Your task to perform on an android device: open sync settings in chrome Image 0: 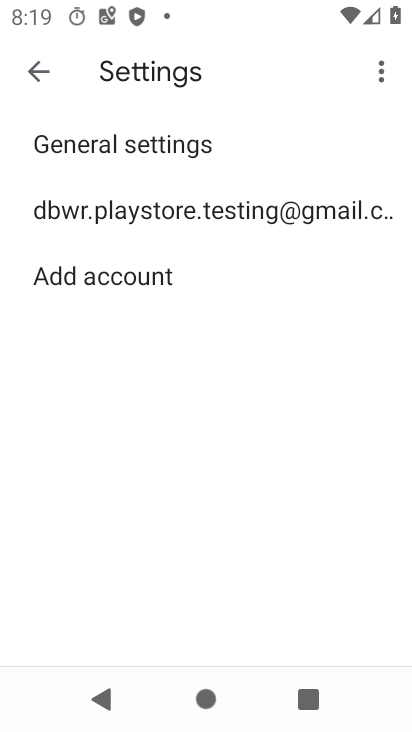
Step 0: press home button
Your task to perform on an android device: open sync settings in chrome Image 1: 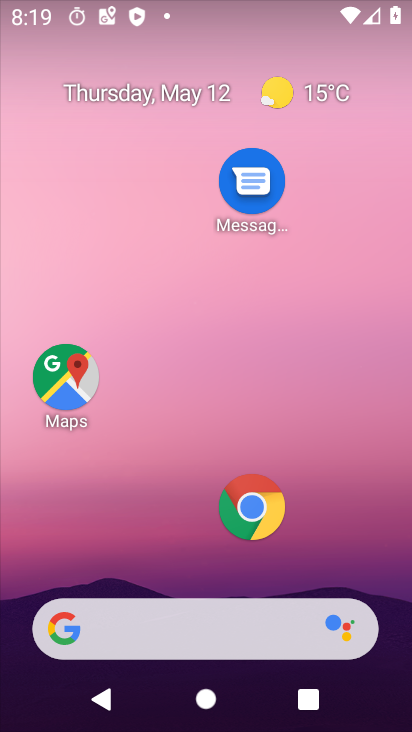
Step 1: click (258, 501)
Your task to perform on an android device: open sync settings in chrome Image 2: 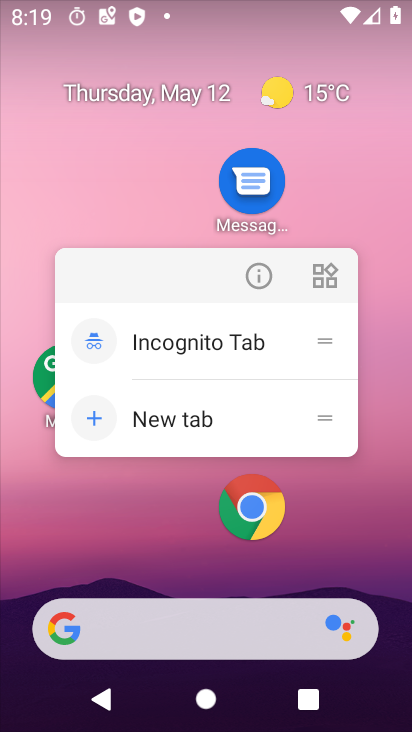
Step 2: click (259, 501)
Your task to perform on an android device: open sync settings in chrome Image 3: 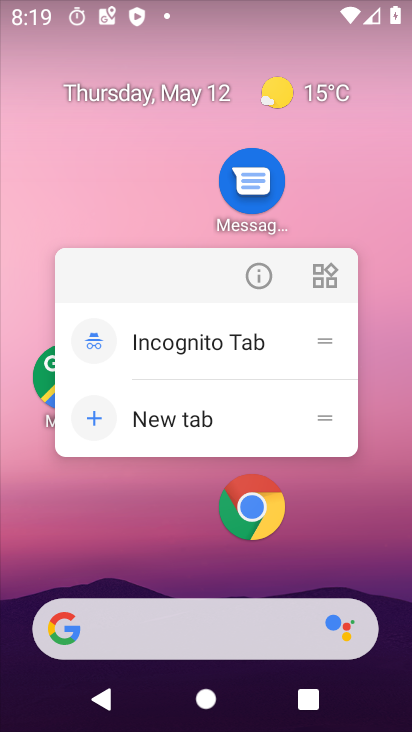
Step 3: click (259, 501)
Your task to perform on an android device: open sync settings in chrome Image 4: 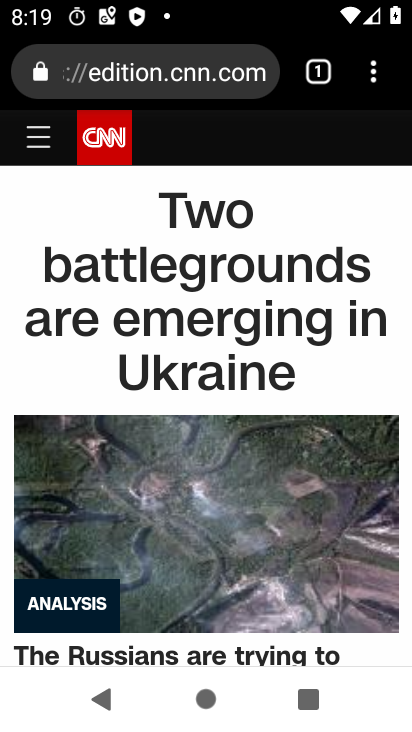
Step 4: click (362, 83)
Your task to perform on an android device: open sync settings in chrome Image 5: 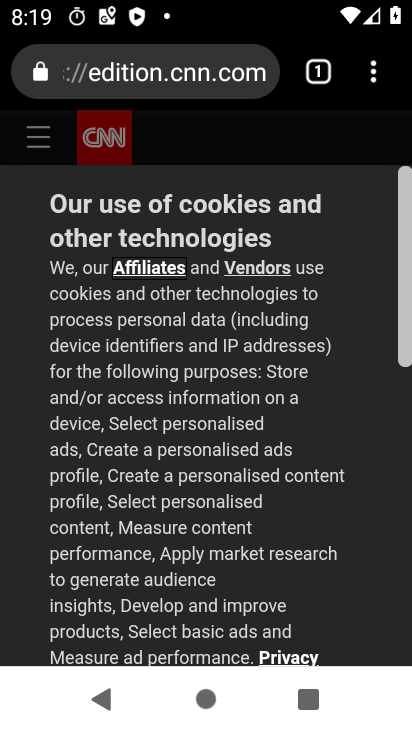
Step 5: click (365, 80)
Your task to perform on an android device: open sync settings in chrome Image 6: 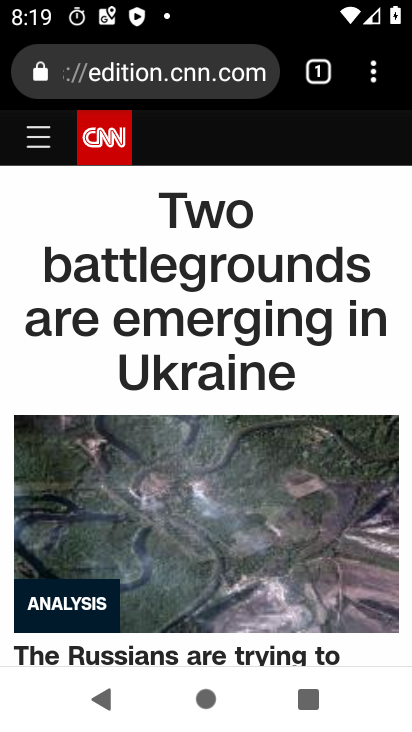
Step 6: click (370, 76)
Your task to perform on an android device: open sync settings in chrome Image 7: 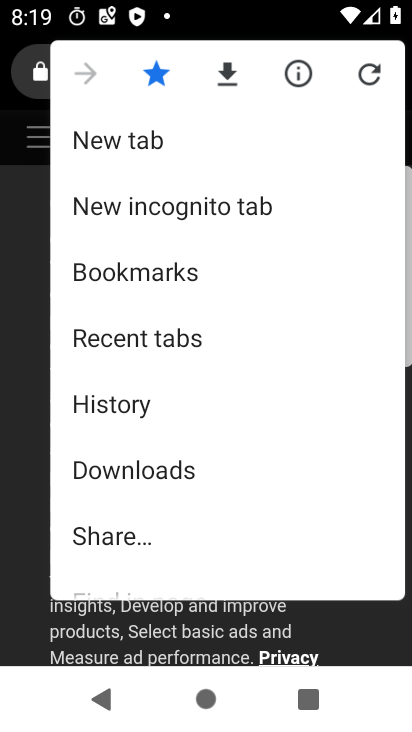
Step 7: drag from (208, 545) to (260, 269)
Your task to perform on an android device: open sync settings in chrome Image 8: 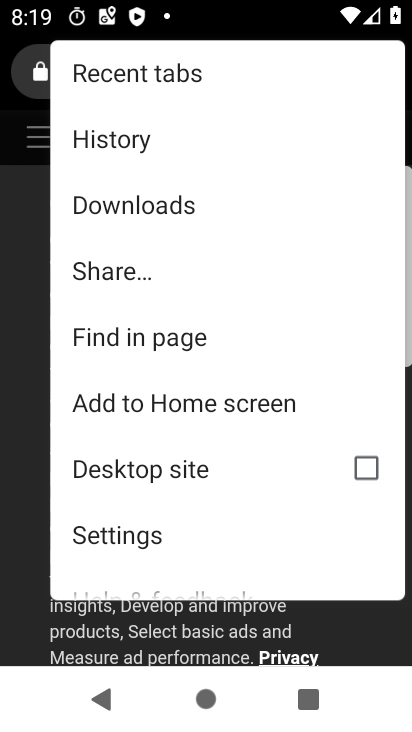
Step 8: click (163, 536)
Your task to perform on an android device: open sync settings in chrome Image 9: 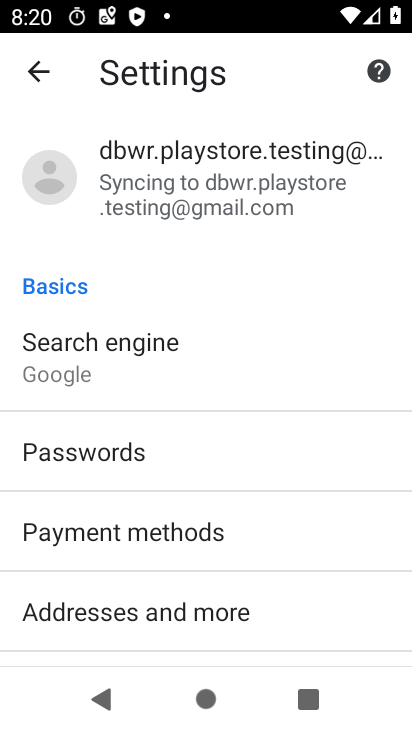
Step 9: click (236, 185)
Your task to perform on an android device: open sync settings in chrome Image 10: 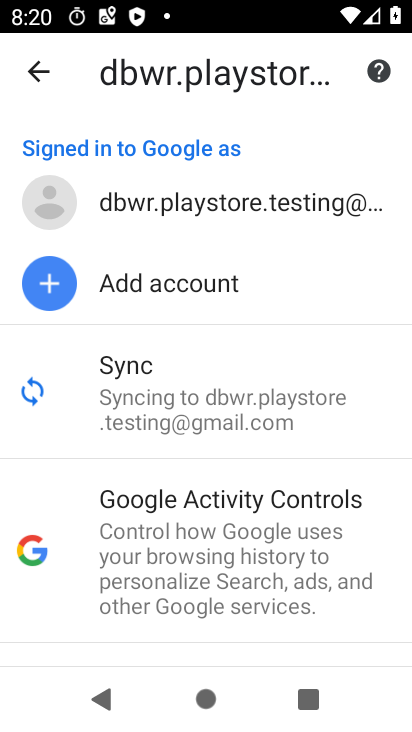
Step 10: click (196, 391)
Your task to perform on an android device: open sync settings in chrome Image 11: 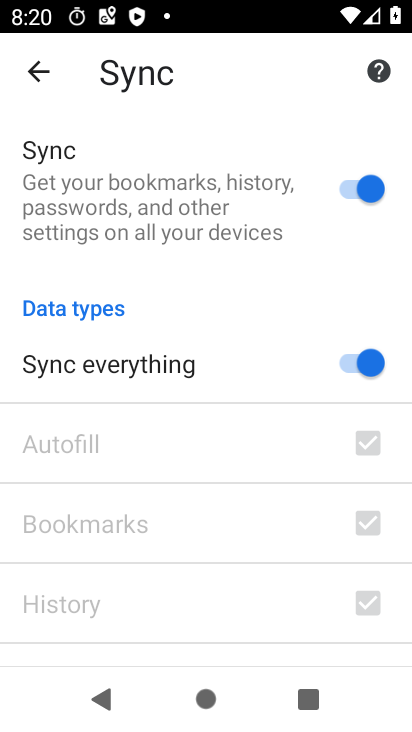
Step 11: task complete